Your task to perform on an android device: toggle wifi Image 0: 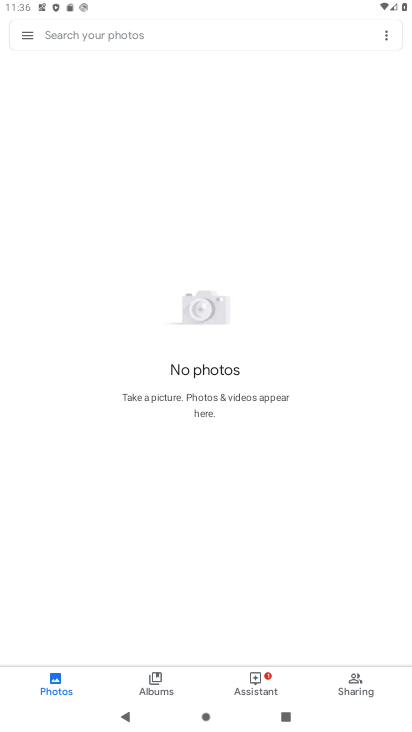
Step 0: press home button
Your task to perform on an android device: toggle wifi Image 1: 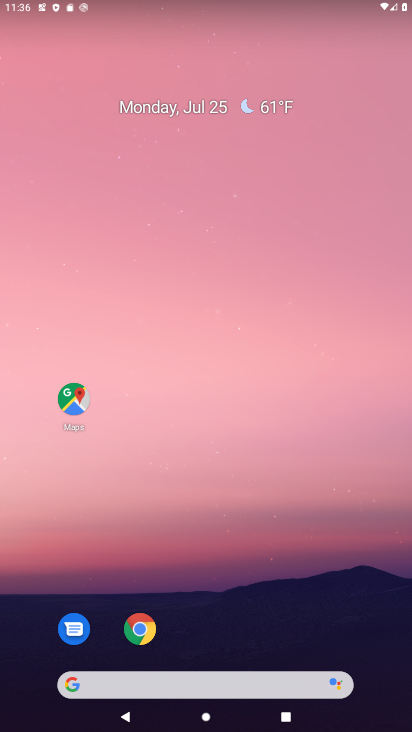
Step 1: drag from (222, 631) to (199, 47)
Your task to perform on an android device: toggle wifi Image 2: 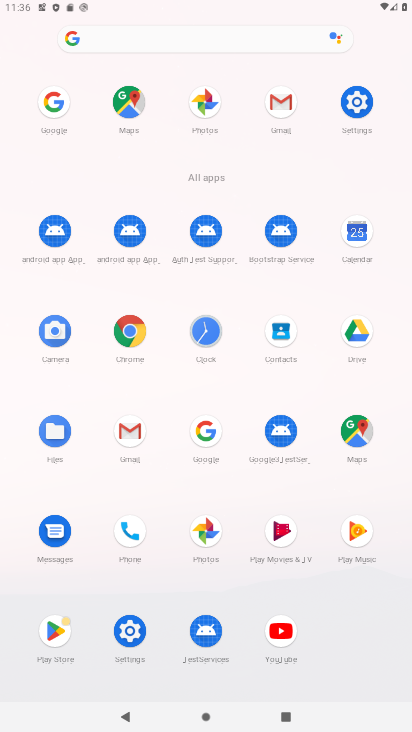
Step 2: click (337, 107)
Your task to perform on an android device: toggle wifi Image 3: 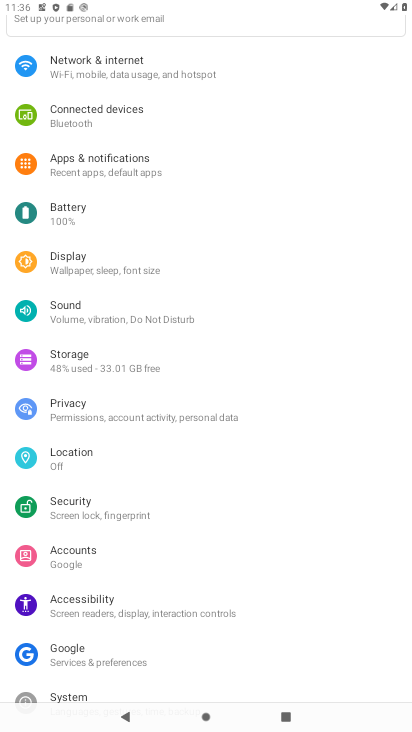
Step 3: click (110, 72)
Your task to perform on an android device: toggle wifi Image 4: 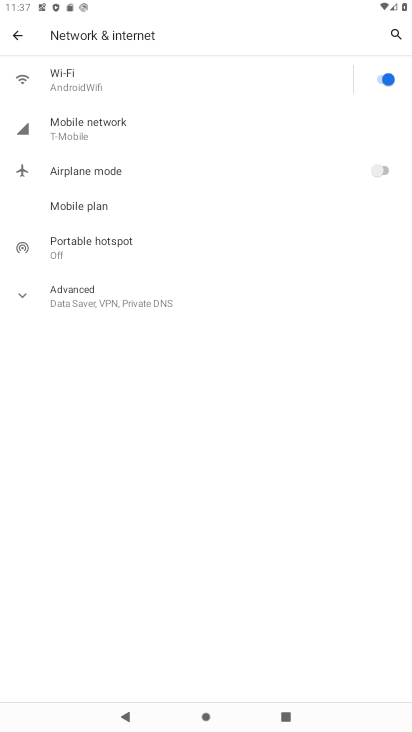
Step 4: task complete